Your task to perform on an android device: change the upload size in google photos Image 0: 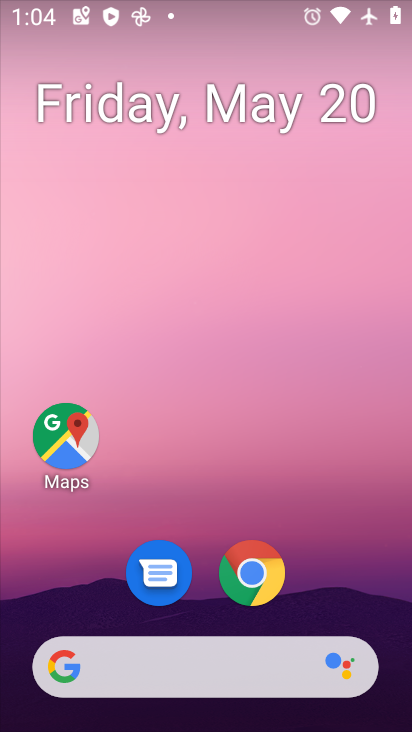
Step 0: drag from (336, 556) to (318, 40)
Your task to perform on an android device: change the upload size in google photos Image 1: 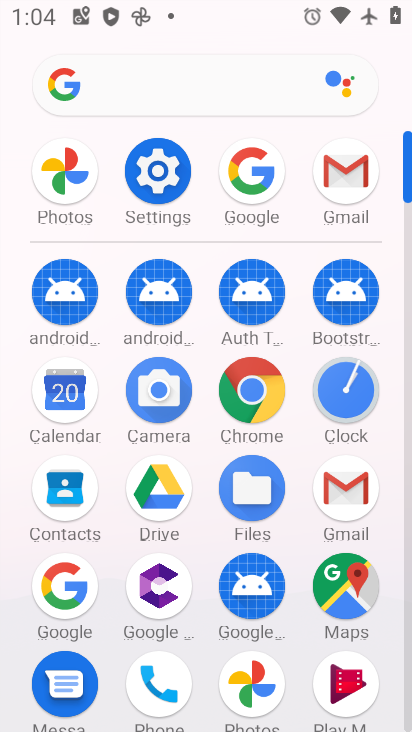
Step 1: click (252, 675)
Your task to perform on an android device: change the upload size in google photos Image 2: 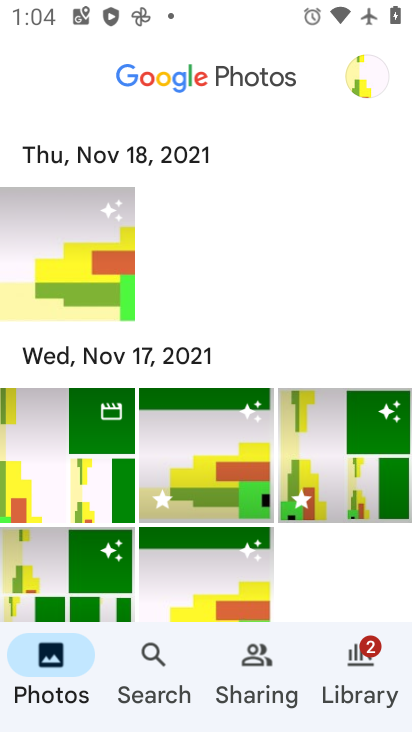
Step 2: click (370, 71)
Your task to perform on an android device: change the upload size in google photos Image 3: 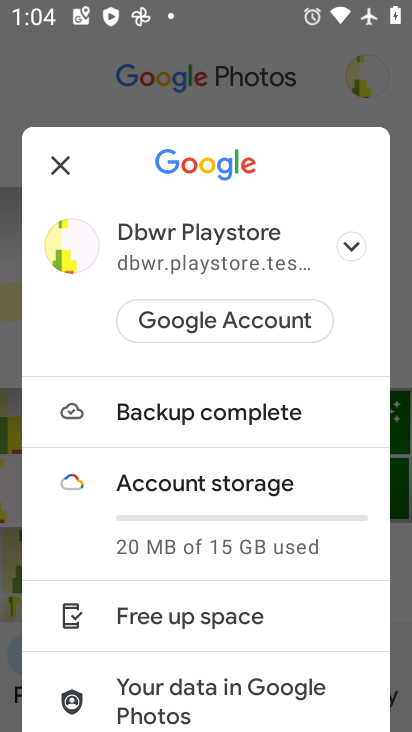
Step 3: drag from (227, 640) to (280, 184)
Your task to perform on an android device: change the upload size in google photos Image 4: 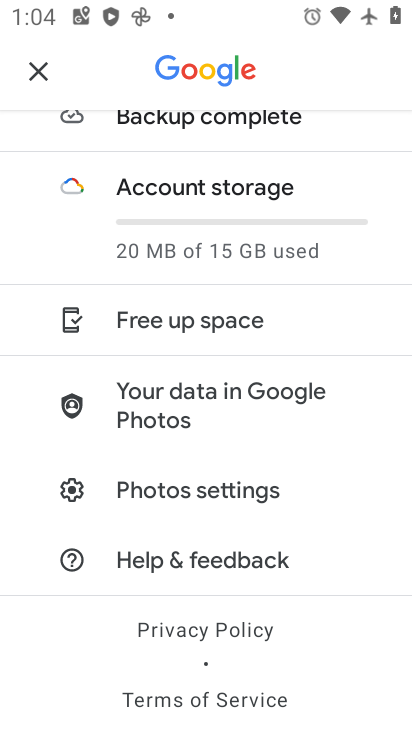
Step 4: click (175, 477)
Your task to perform on an android device: change the upload size in google photos Image 5: 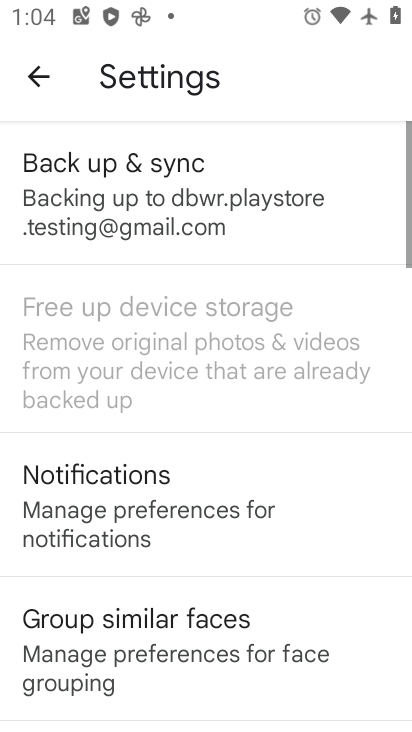
Step 5: drag from (254, 576) to (239, 92)
Your task to perform on an android device: change the upload size in google photos Image 6: 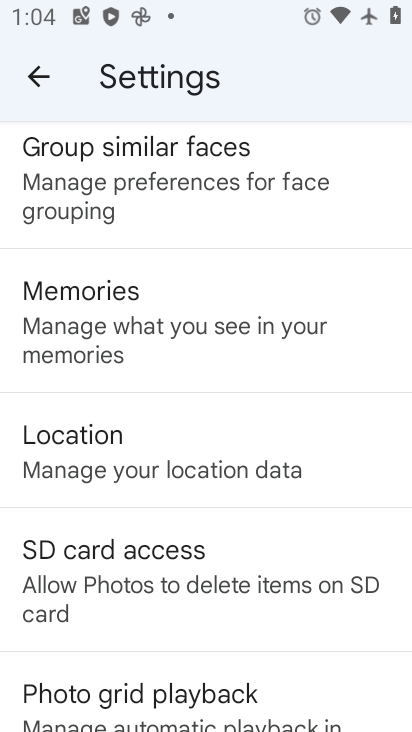
Step 6: drag from (253, 588) to (252, 155)
Your task to perform on an android device: change the upload size in google photos Image 7: 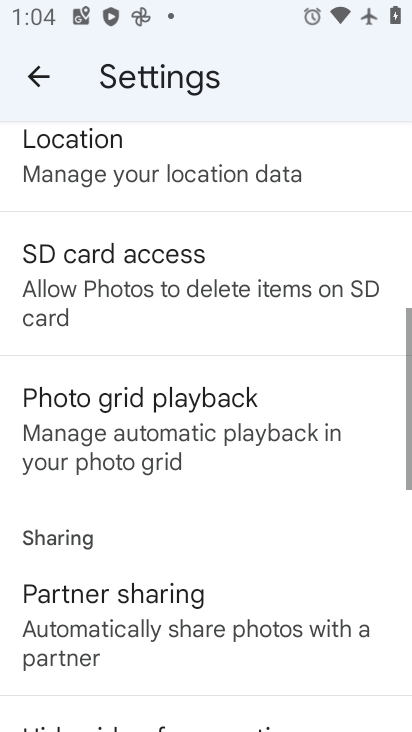
Step 7: drag from (256, 128) to (353, 166)
Your task to perform on an android device: change the upload size in google photos Image 8: 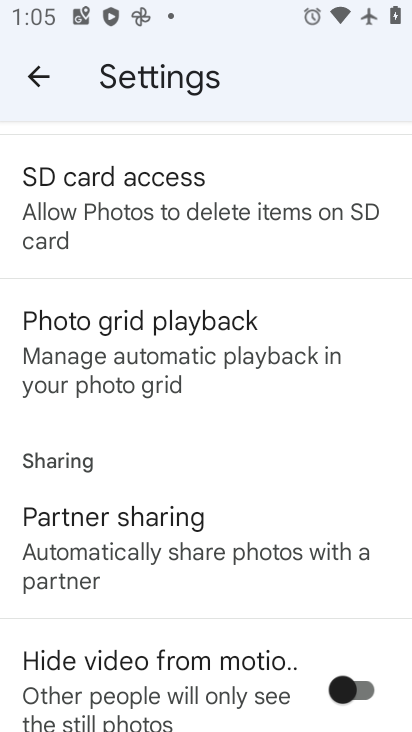
Step 8: drag from (197, 220) to (294, 700)
Your task to perform on an android device: change the upload size in google photos Image 9: 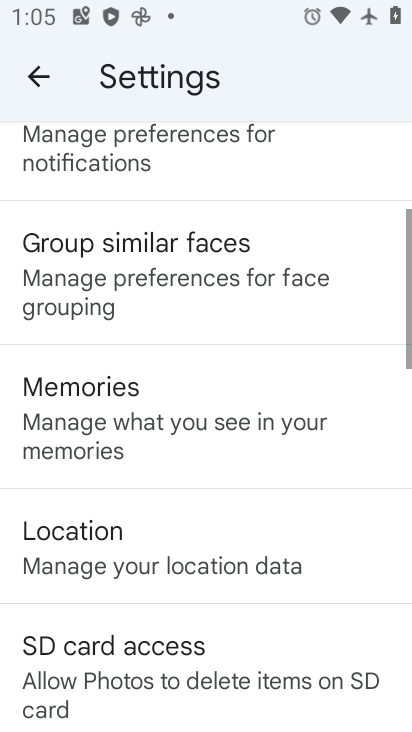
Step 9: drag from (169, 224) to (295, 729)
Your task to perform on an android device: change the upload size in google photos Image 10: 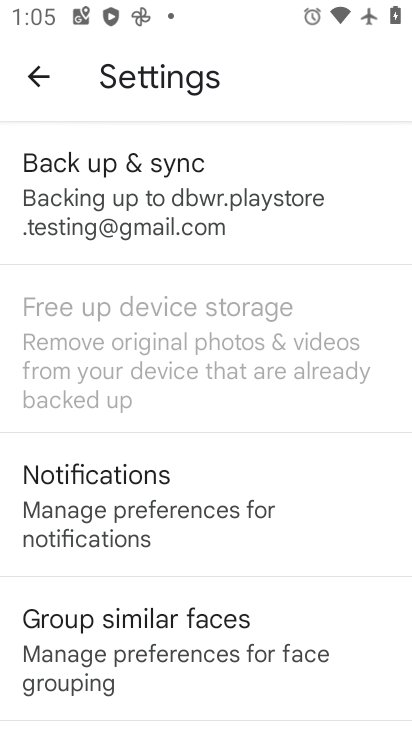
Step 10: click (160, 202)
Your task to perform on an android device: change the upload size in google photos Image 11: 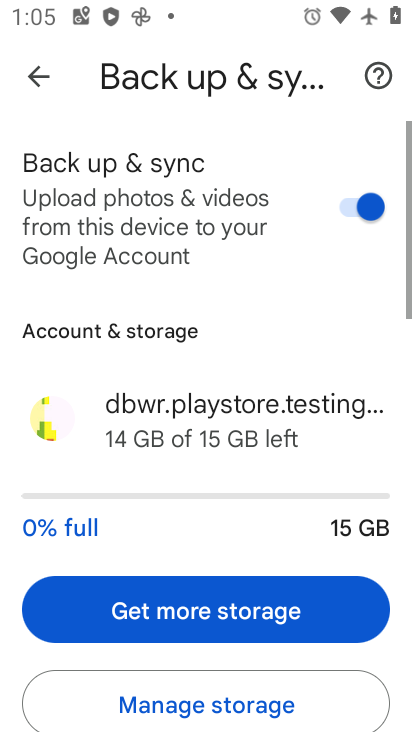
Step 11: drag from (230, 527) to (263, 109)
Your task to perform on an android device: change the upload size in google photos Image 12: 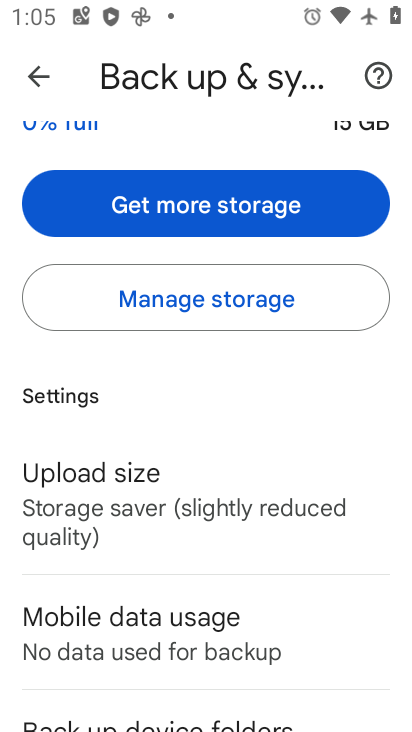
Step 12: click (203, 516)
Your task to perform on an android device: change the upload size in google photos Image 13: 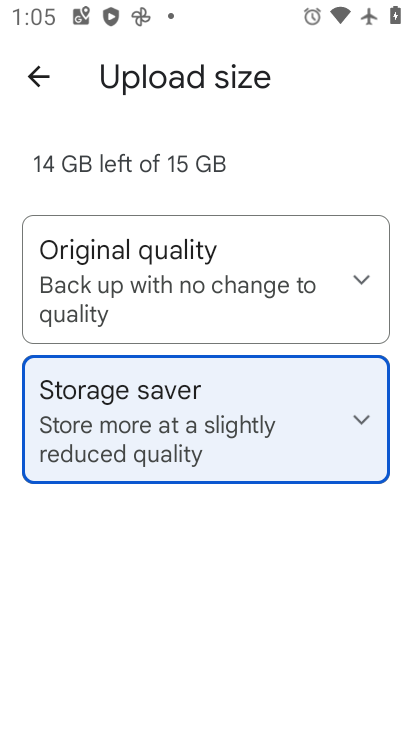
Step 13: click (109, 283)
Your task to perform on an android device: change the upload size in google photos Image 14: 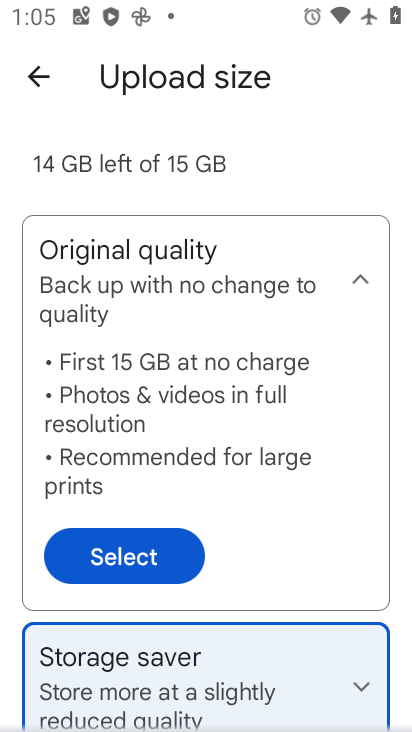
Step 14: click (131, 555)
Your task to perform on an android device: change the upload size in google photos Image 15: 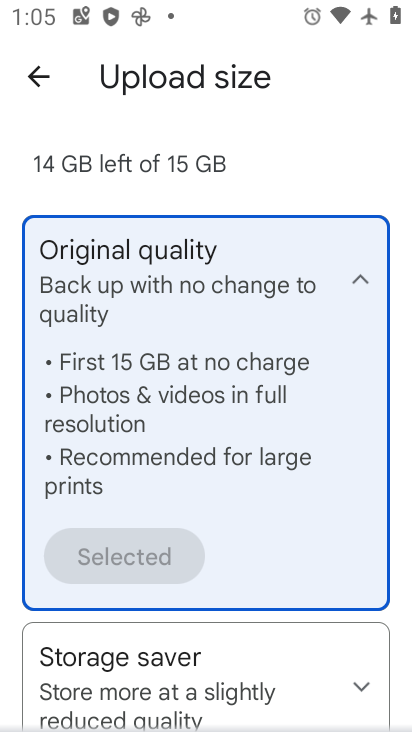
Step 15: task complete